Your task to perform on an android device: toggle notifications settings in the gmail app Image 0: 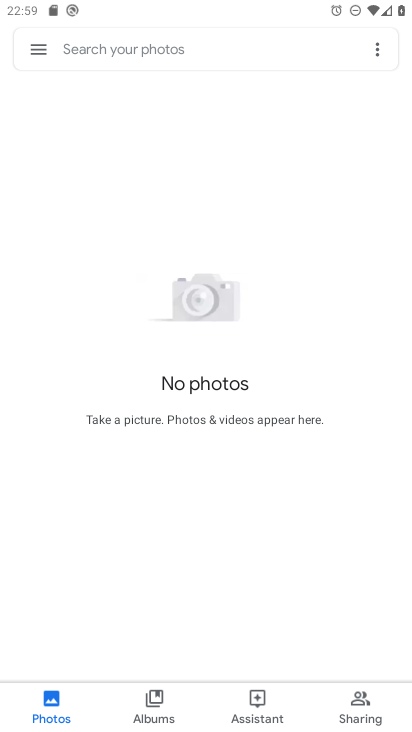
Step 0: press home button
Your task to perform on an android device: toggle notifications settings in the gmail app Image 1: 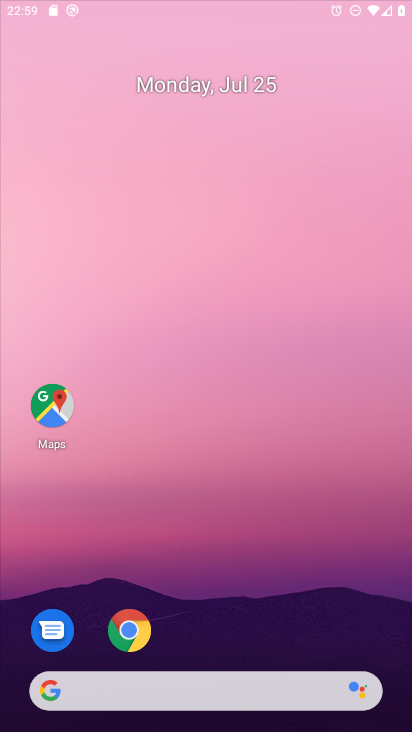
Step 1: drag from (339, 630) to (325, 40)
Your task to perform on an android device: toggle notifications settings in the gmail app Image 2: 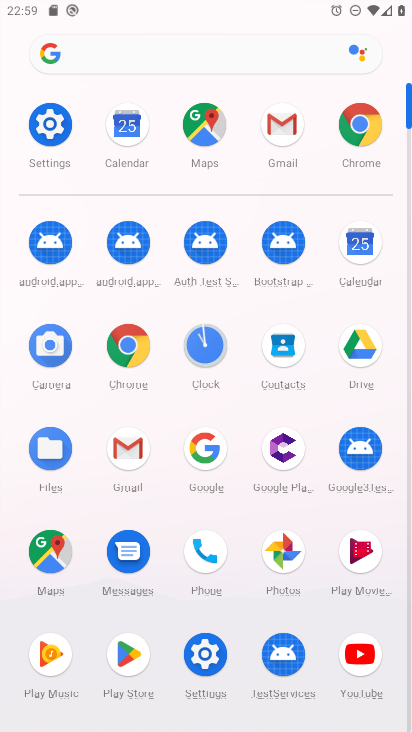
Step 2: click (275, 130)
Your task to perform on an android device: toggle notifications settings in the gmail app Image 3: 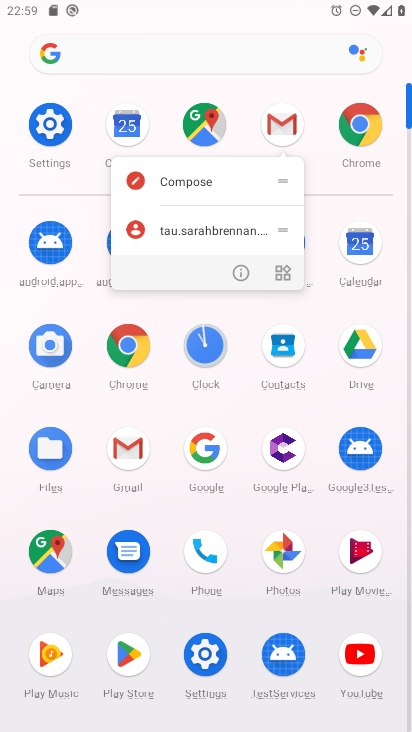
Step 3: click (280, 119)
Your task to perform on an android device: toggle notifications settings in the gmail app Image 4: 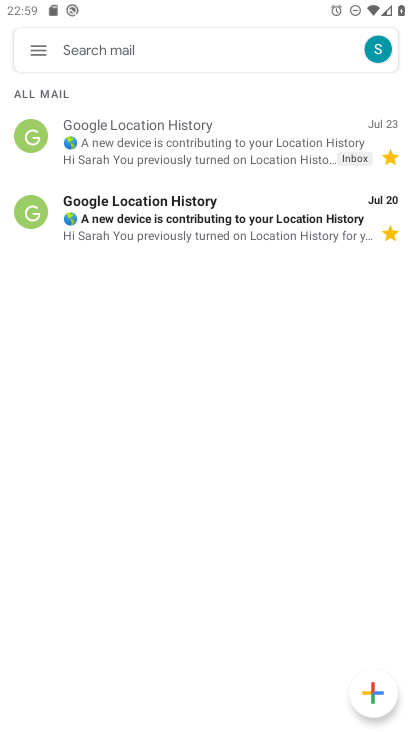
Step 4: click (43, 52)
Your task to perform on an android device: toggle notifications settings in the gmail app Image 5: 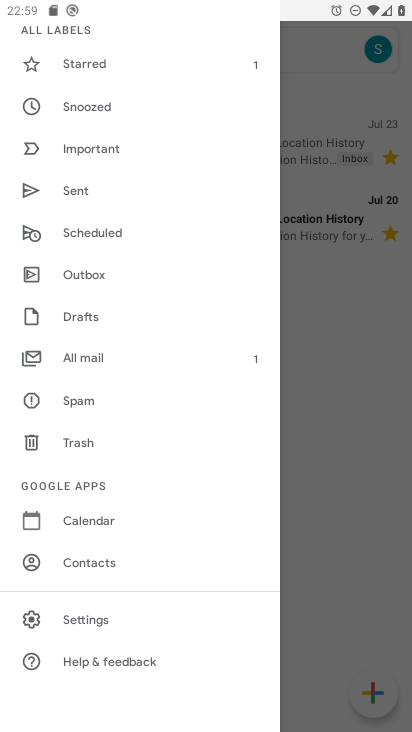
Step 5: click (93, 619)
Your task to perform on an android device: toggle notifications settings in the gmail app Image 6: 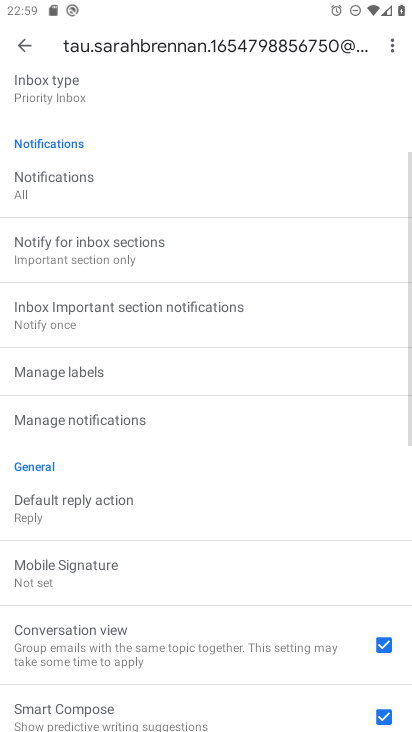
Step 6: drag from (217, 120) to (192, 547)
Your task to perform on an android device: toggle notifications settings in the gmail app Image 7: 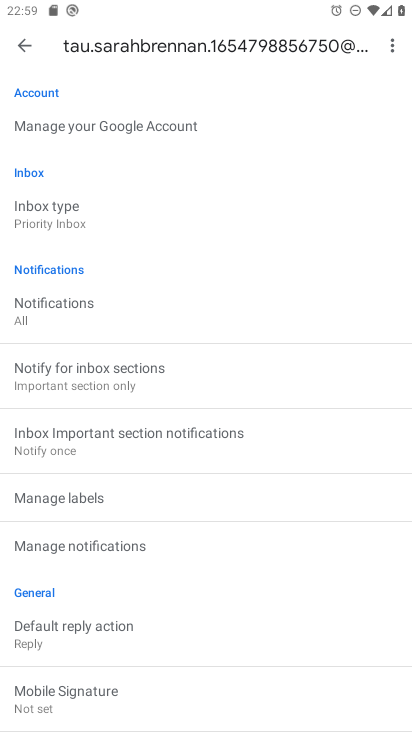
Step 7: click (90, 543)
Your task to perform on an android device: toggle notifications settings in the gmail app Image 8: 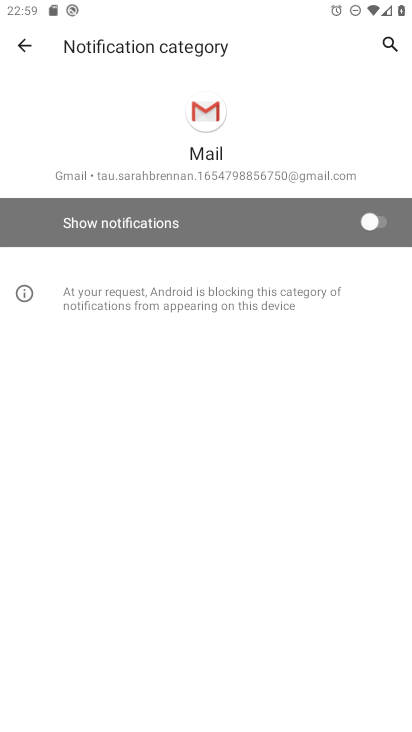
Step 8: click (350, 218)
Your task to perform on an android device: toggle notifications settings in the gmail app Image 9: 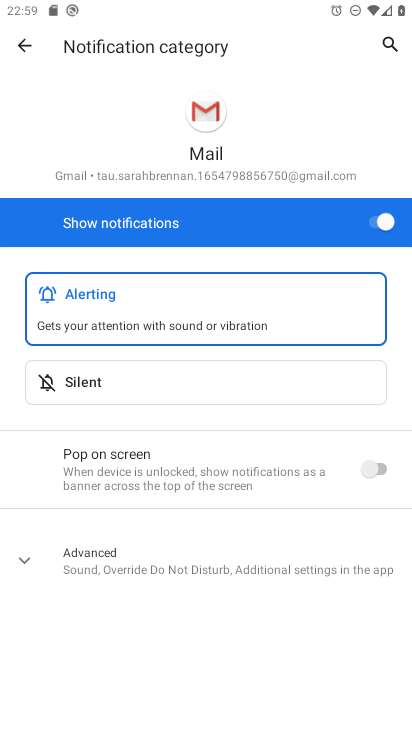
Step 9: task complete